Your task to perform on an android device: change the upload size in google photos Image 0: 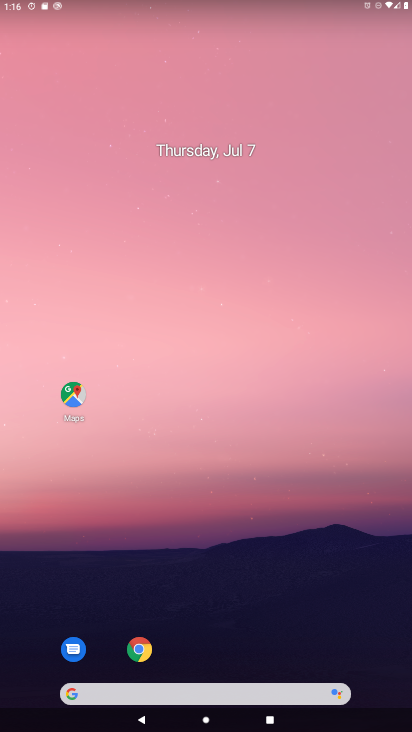
Step 0: drag from (221, 662) to (171, 188)
Your task to perform on an android device: change the upload size in google photos Image 1: 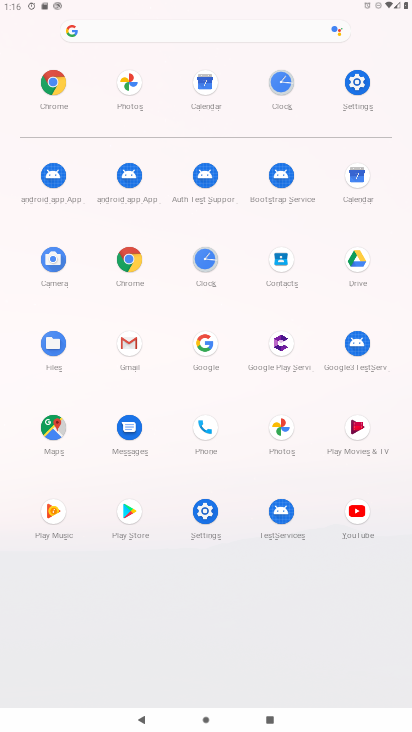
Step 1: click (286, 415)
Your task to perform on an android device: change the upload size in google photos Image 2: 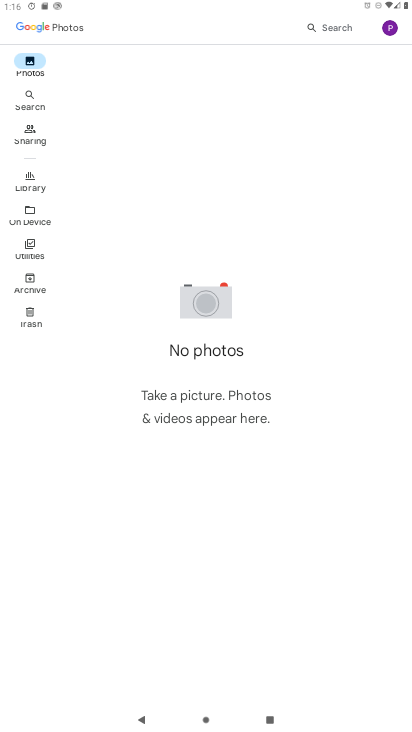
Step 2: click (379, 31)
Your task to perform on an android device: change the upload size in google photos Image 3: 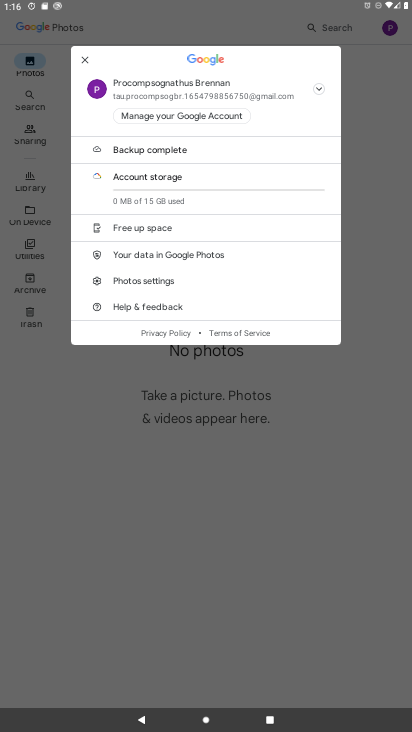
Step 3: click (126, 272)
Your task to perform on an android device: change the upload size in google photos Image 4: 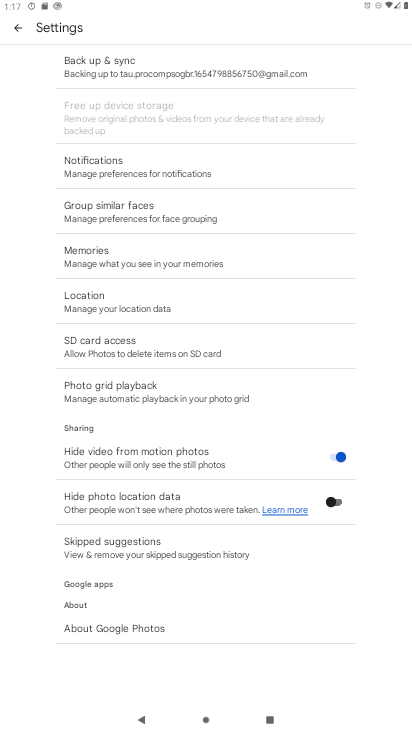
Step 4: click (93, 74)
Your task to perform on an android device: change the upload size in google photos Image 5: 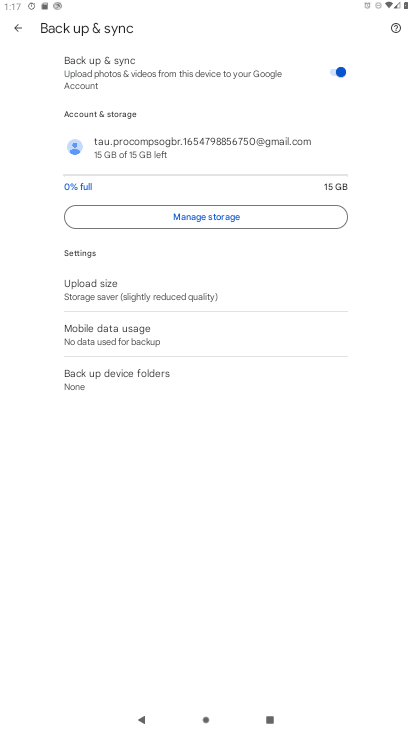
Step 5: click (107, 288)
Your task to perform on an android device: change the upload size in google photos Image 6: 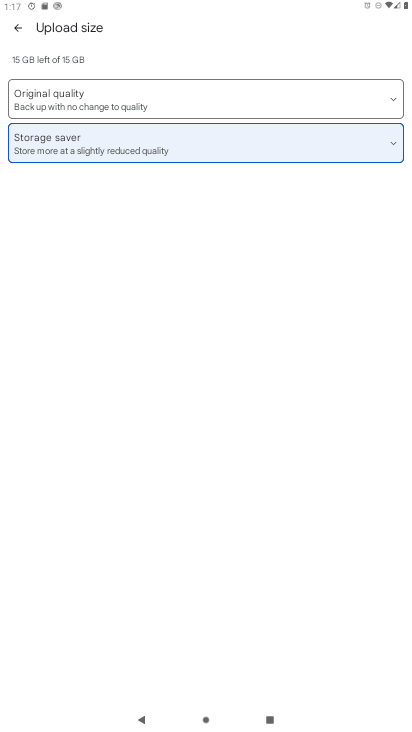
Step 6: click (106, 92)
Your task to perform on an android device: change the upload size in google photos Image 7: 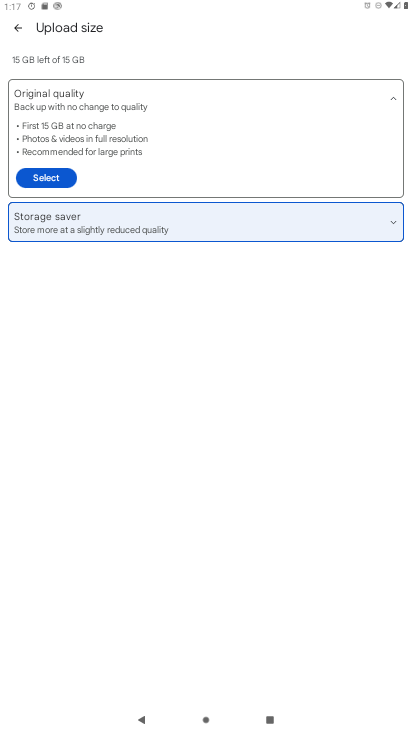
Step 7: click (47, 170)
Your task to perform on an android device: change the upload size in google photos Image 8: 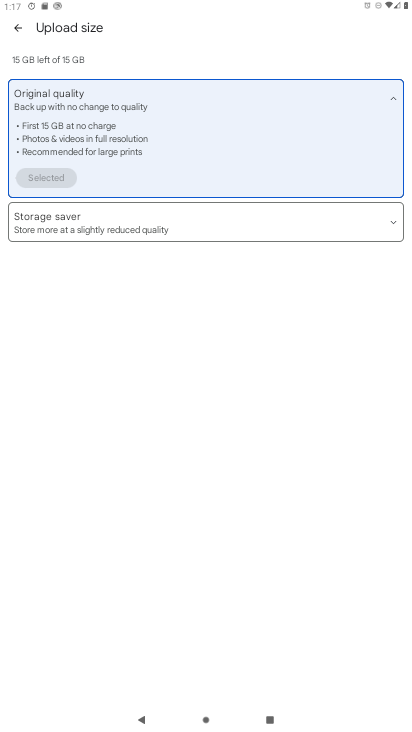
Step 8: task complete